Your task to perform on an android device: Go to sound settings Image 0: 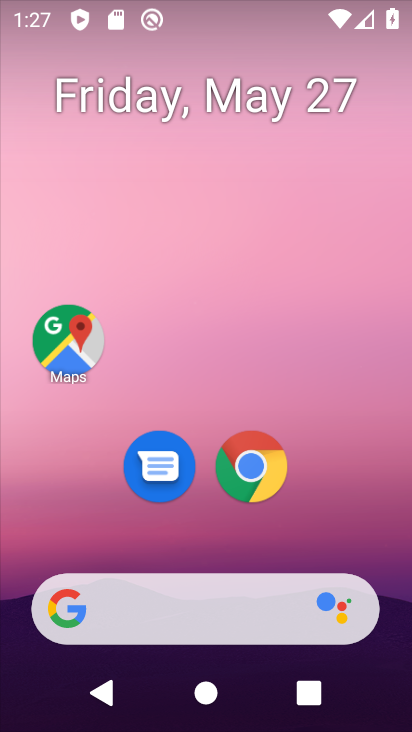
Step 0: drag from (338, 545) to (231, 91)
Your task to perform on an android device: Go to sound settings Image 1: 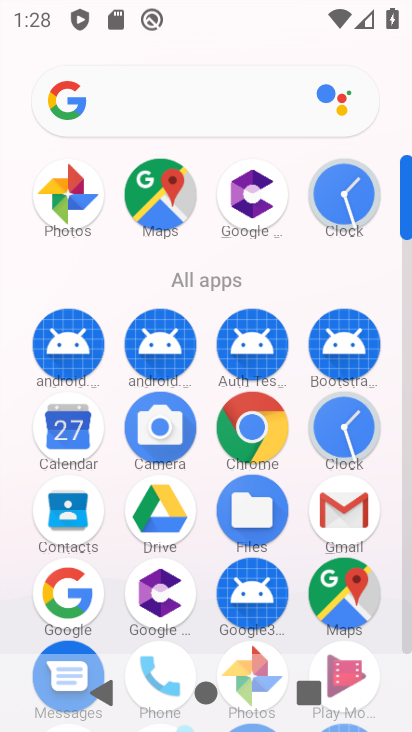
Step 1: drag from (200, 322) to (176, 164)
Your task to perform on an android device: Go to sound settings Image 2: 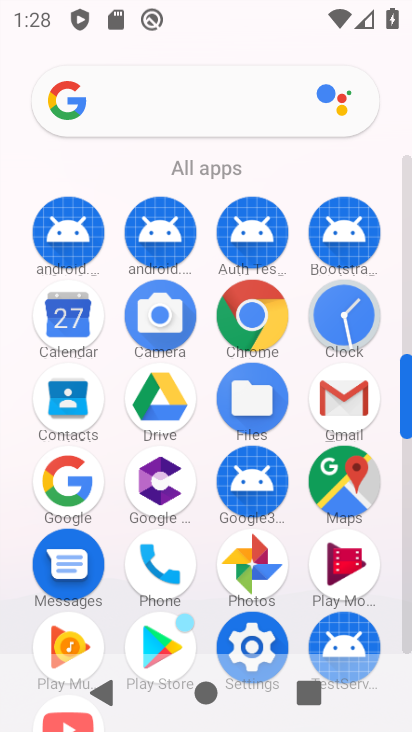
Step 2: click (246, 623)
Your task to perform on an android device: Go to sound settings Image 3: 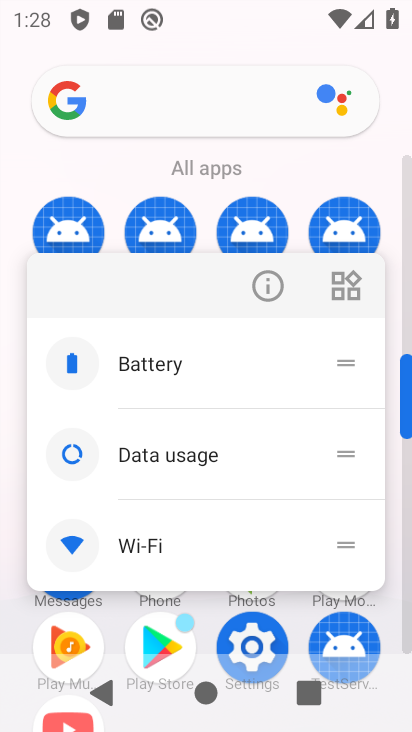
Step 3: click (253, 646)
Your task to perform on an android device: Go to sound settings Image 4: 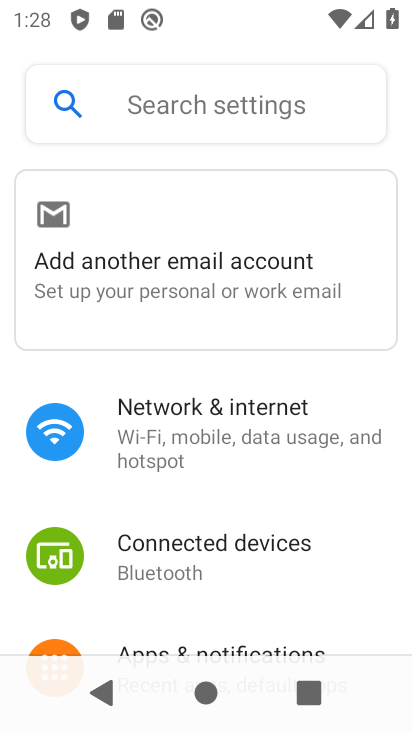
Step 4: drag from (259, 631) to (266, 558)
Your task to perform on an android device: Go to sound settings Image 5: 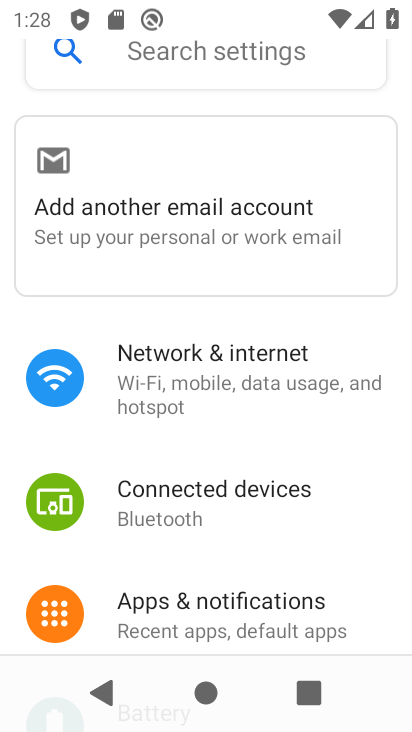
Step 5: drag from (251, 640) to (176, 262)
Your task to perform on an android device: Go to sound settings Image 6: 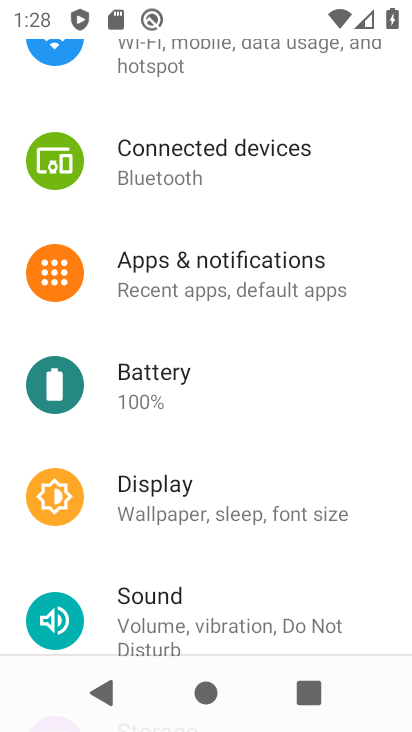
Step 6: click (178, 608)
Your task to perform on an android device: Go to sound settings Image 7: 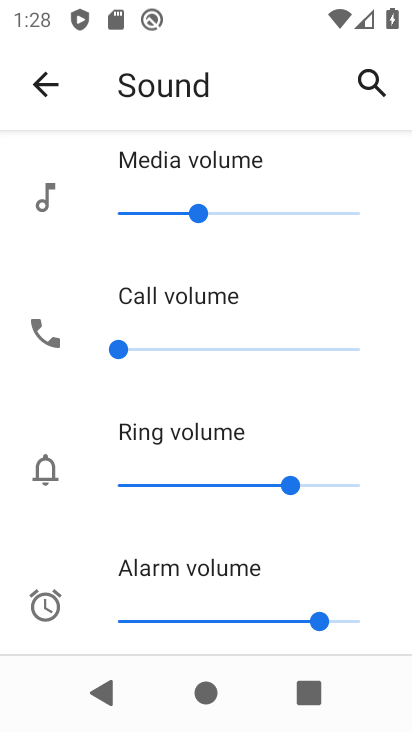
Step 7: task complete